Your task to perform on an android device: Open Google Maps Image 0: 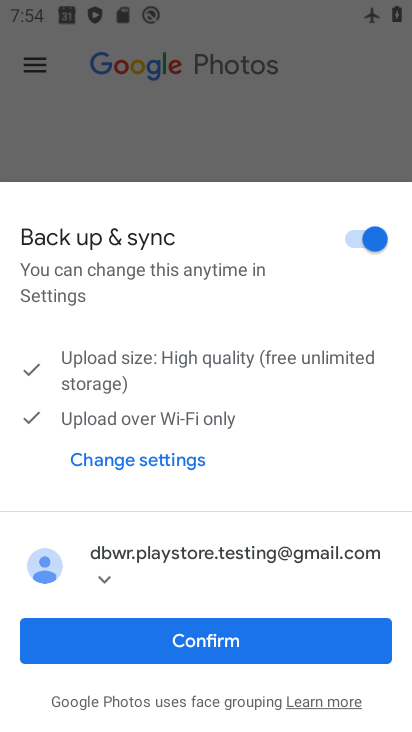
Step 0: press back button
Your task to perform on an android device: Open Google Maps Image 1: 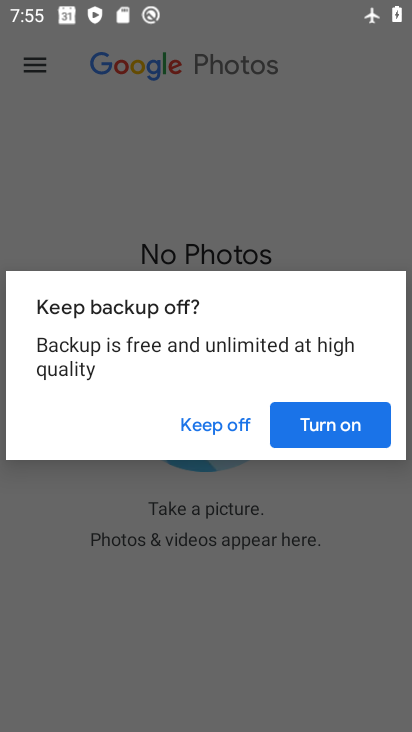
Step 1: press home button
Your task to perform on an android device: Open Google Maps Image 2: 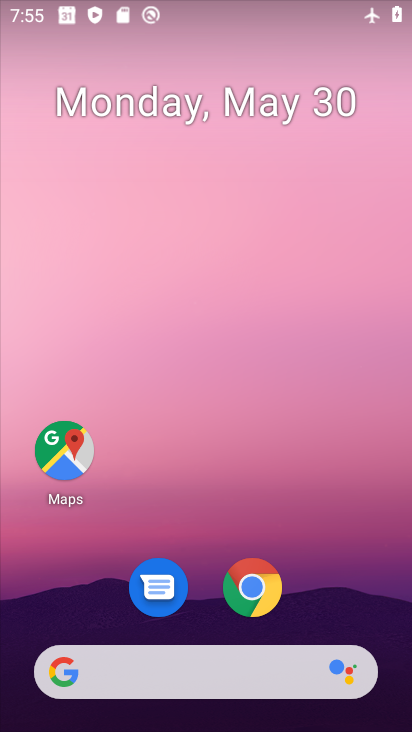
Step 2: drag from (283, 332) to (208, 5)
Your task to perform on an android device: Open Google Maps Image 3: 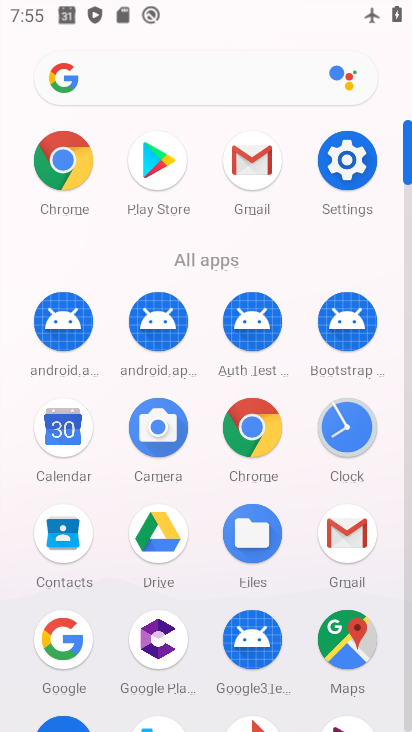
Step 3: drag from (9, 552) to (6, 242)
Your task to perform on an android device: Open Google Maps Image 4: 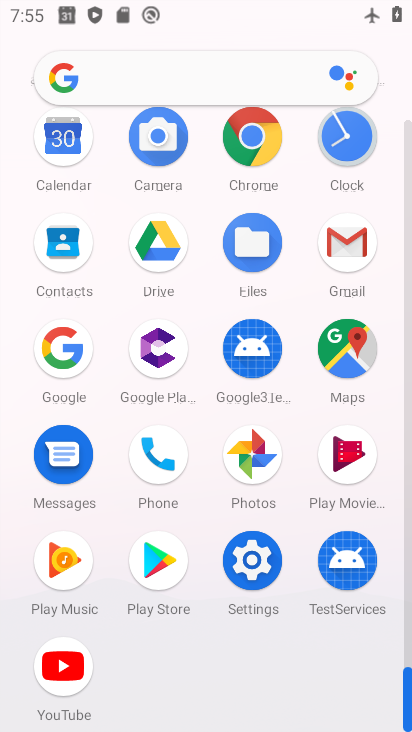
Step 4: click (354, 350)
Your task to perform on an android device: Open Google Maps Image 5: 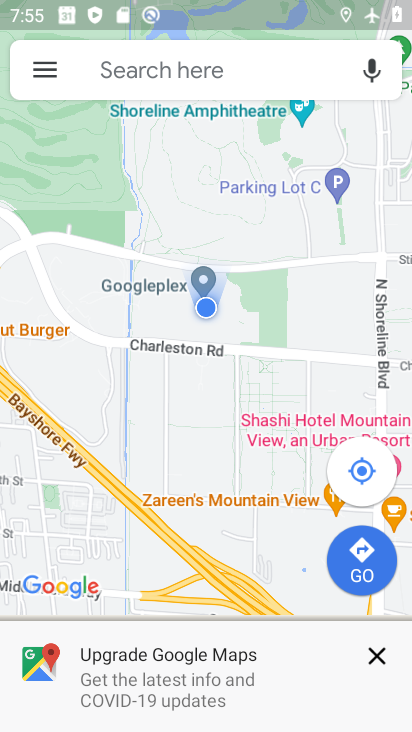
Step 5: task complete